Your task to perform on an android device: turn off data saver in the chrome app Image 0: 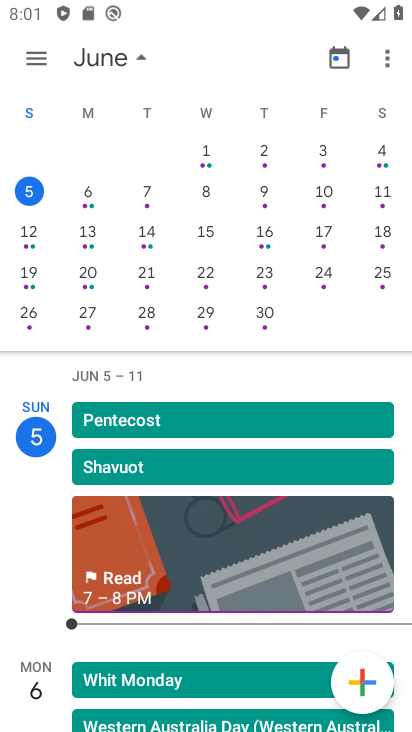
Step 0: press home button
Your task to perform on an android device: turn off data saver in the chrome app Image 1: 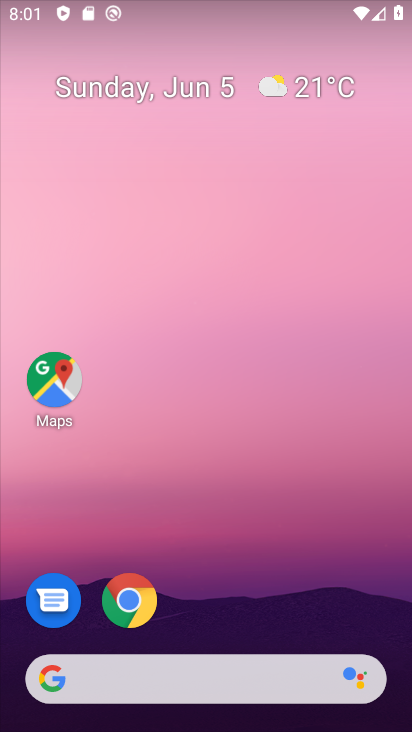
Step 1: click (124, 593)
Your task to perform on an android device: turn off data saver in the chrome app Image 2: 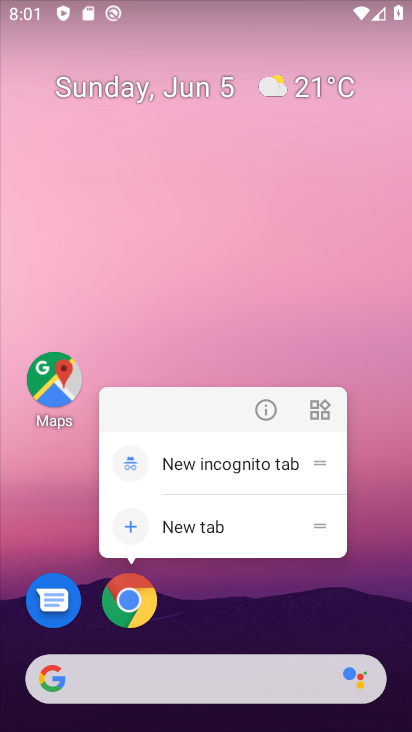
Step 2: click (123, 594)
Your task to perform on an android device: turn off data saver in the chrome app Image 3: 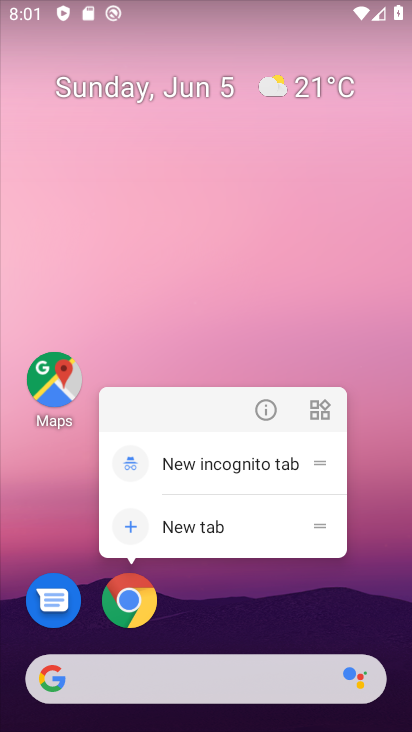
Step 3: click (136, 594)
Your task to perform on an android device: turn off data saver in the chrome app Image 4: 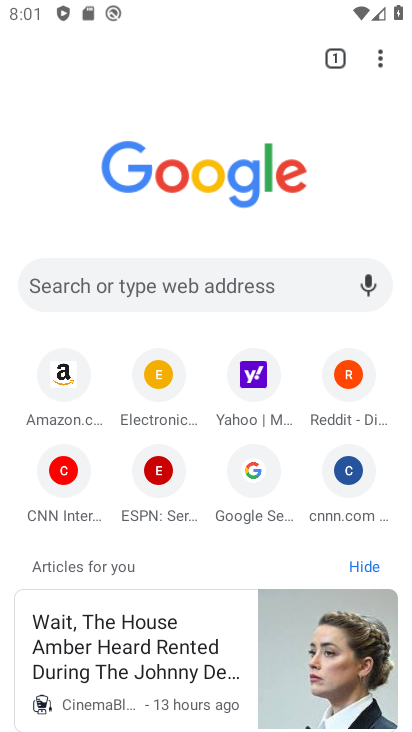
Step 4: click (385, 58)
Your task to perform on an android device: turn off data saver in the chrome app Image 5: 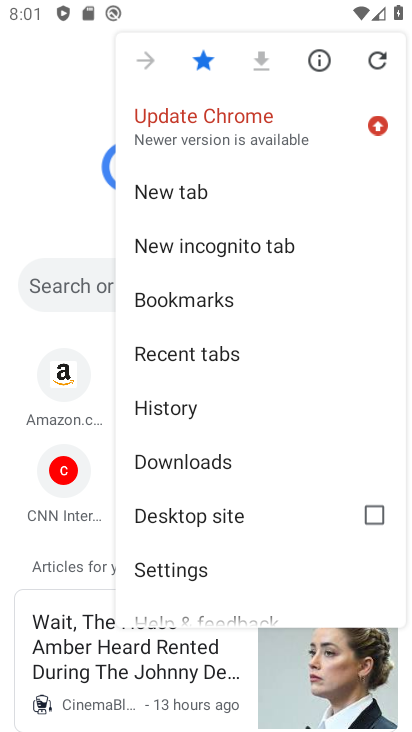
Step 5: click (215, 579)
Your task to perform on an android device: turn off data saver in the chrome app Image 6: 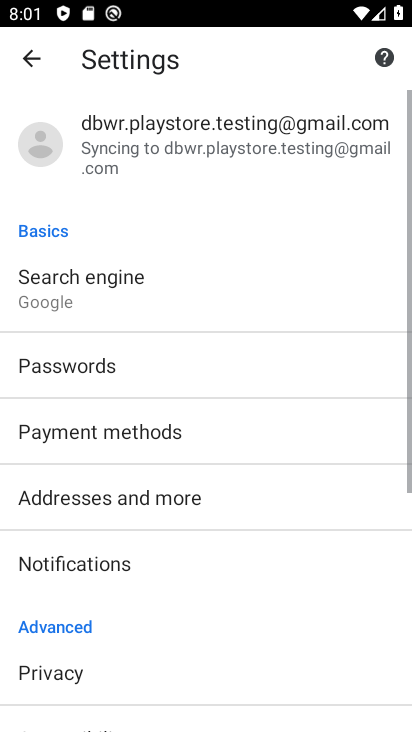
Step 6: drag from (131, 638) to (171, 224)
Your task to perform on an android device: turn off data saver in the chrome app Image 7: 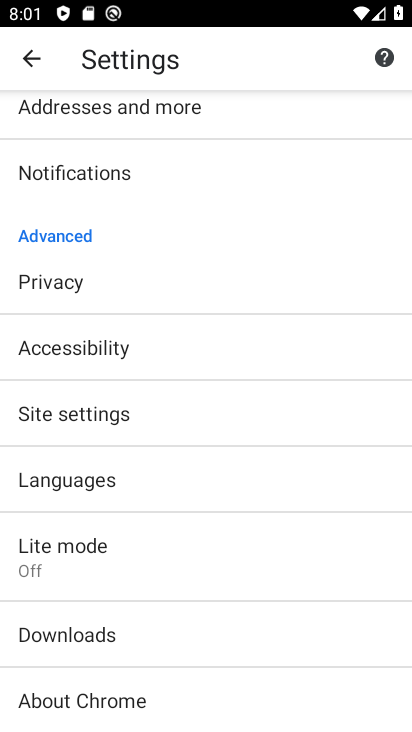
Step 7: click (102, 534)
Your task to perform on an android device: turn off data saver in the chrome app Image 8: 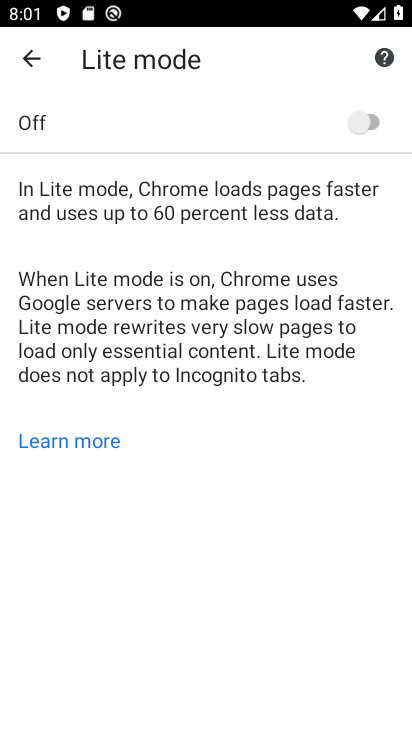
Step 8: task complete